Your task to perform on an android device: Go to sound settings Image 0: 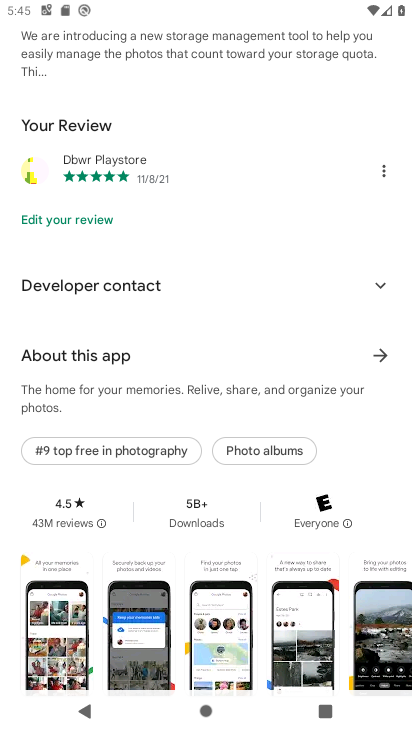
Step 0: press home button
Your task to perform on an android device: Go to sound settings Image 1: 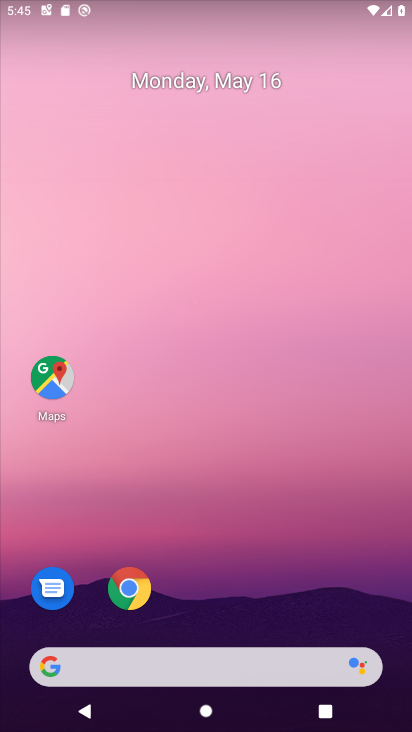
Step 1: drag from (235, 524) to (232, 76)
Your task to perform on an android device: Go to sound settings Image 2: 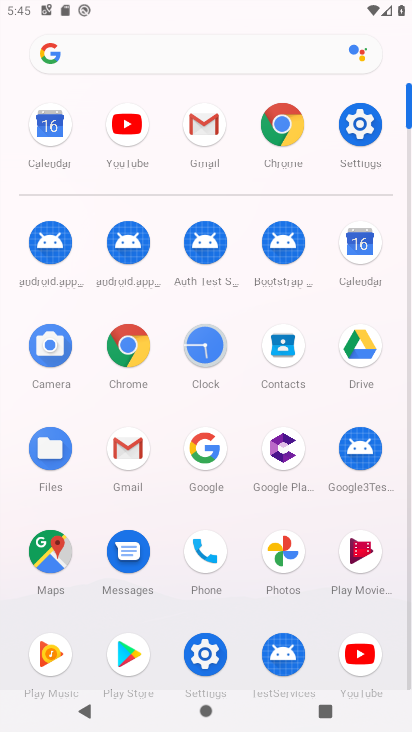
Step 2: click (367, 114)
Your task to perform on an android device: Go to sound settings Image 3: 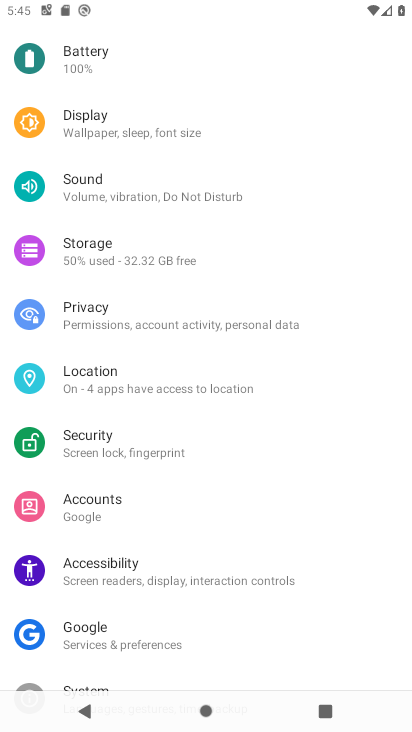
Step 3: click (187, 189)
Your task to perform on an android device: Go to sound settings Image 4: 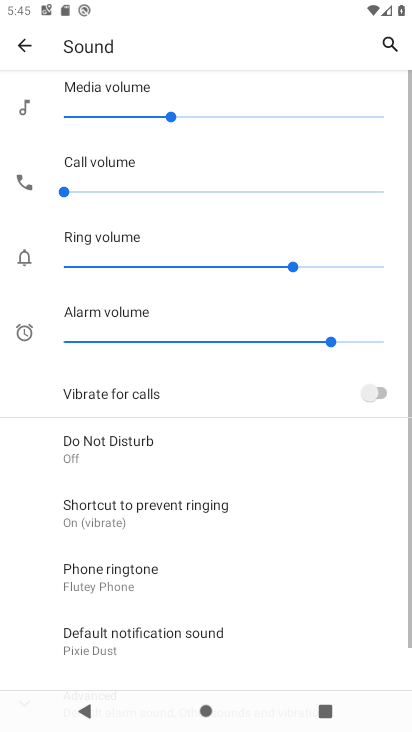
Step 4: task complete